Your task to perform on an android device: Open display settings Image 0: 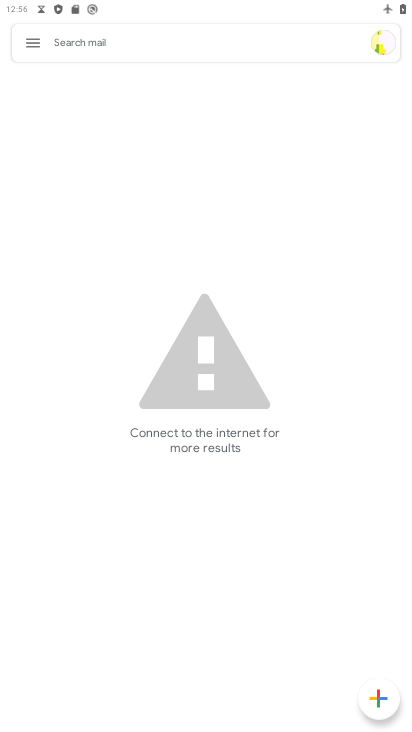
Step 0: press home button
Your task to perform on an android device: Open display settings Image 1: 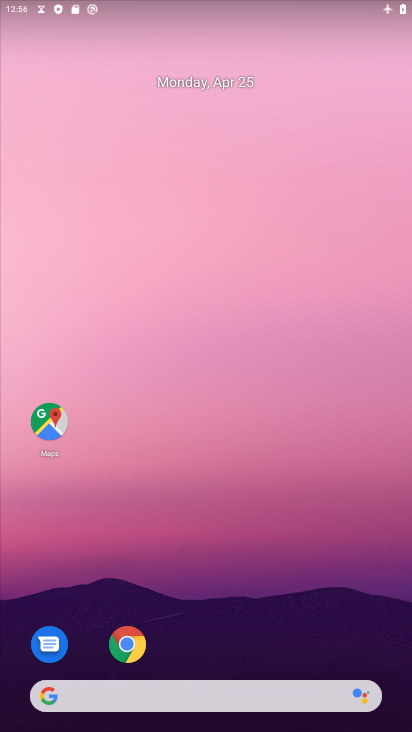
Step 1: drag from (349, 625) to (335, 3)
Your task to perform on an android device: Open display settings Image 2: 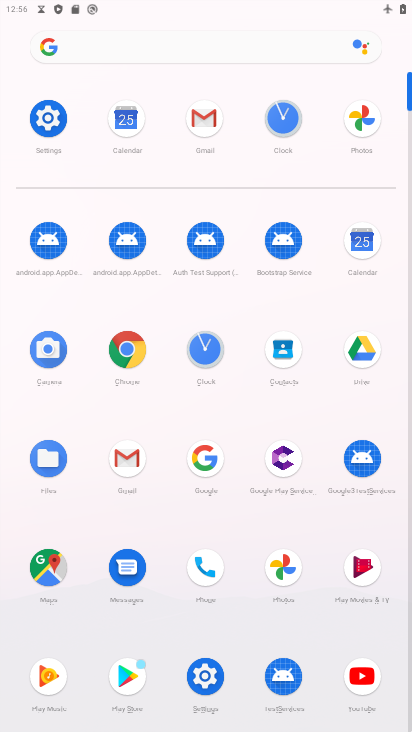
Step 2: click (49, 121)
Your task to perform on an android device: Open display settings Image 3: 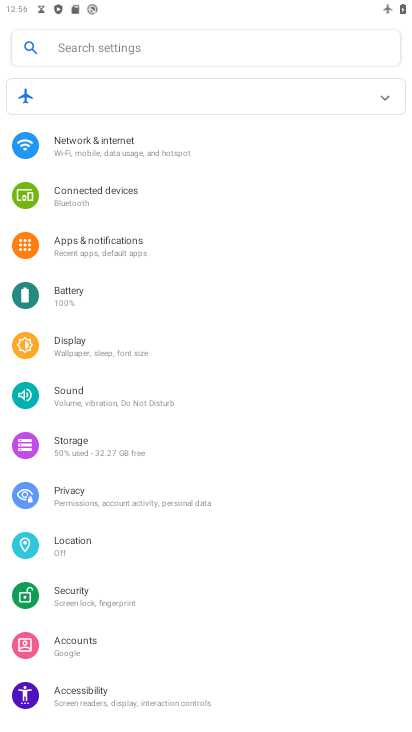
Step 3: click (64, 347)
Your task to perform on an android device: Open display settings Image 4: 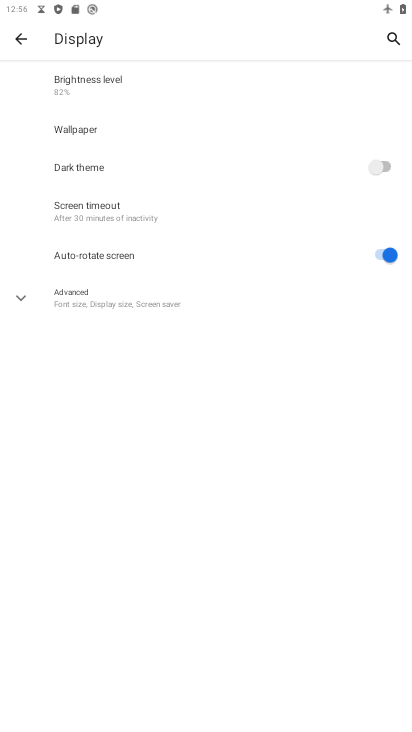
Step 4: task complete